Your task to perform on an android device: Search for vegetarian restaurants on Maps Image 0: 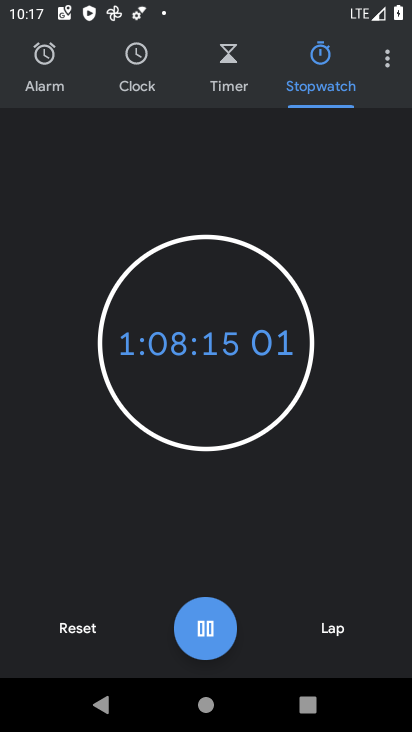
Step 0: press home button
Your task to perform on an android device: Search for vegetarian restaurants on Maps Image 1: 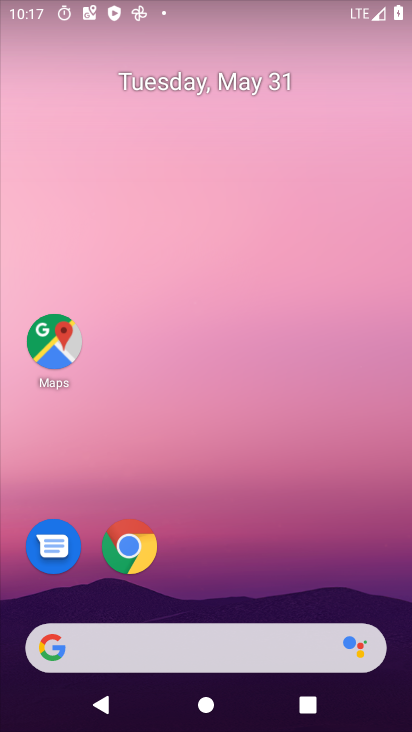
Step 1: click (43, 343)
Your task to perform on an android device: Search for vegetarian restaurants on Maps Image 2: 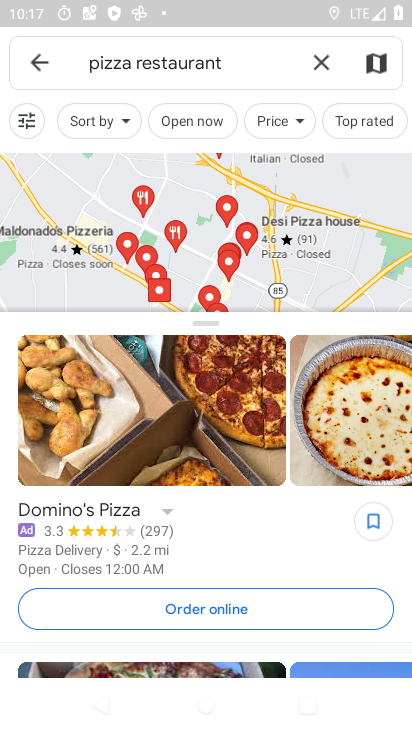
Step 2: click (330, 56)
Your task to perform on an android device: Search for vegetarian restaurants on Maps Image 3: 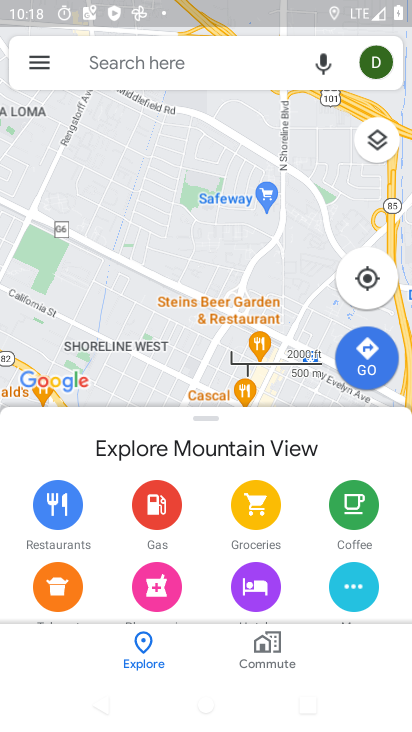
Step 3: click (204, 68)
Your task to perform on an android device: Search for vegetarian restaurants on Maps Image 4: 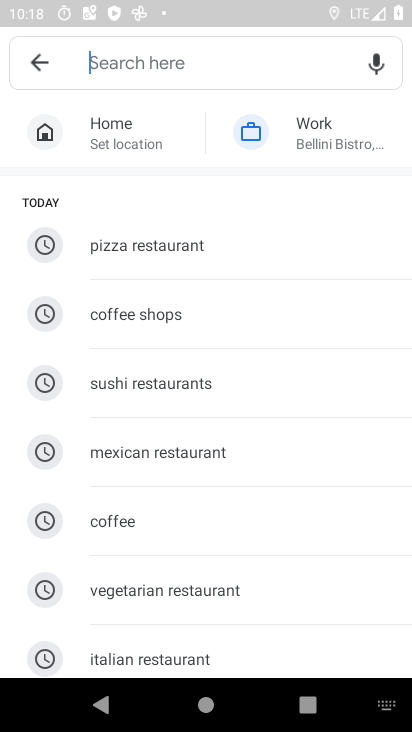
Step 4: click (169, 576)
Your task to perform on an android device: Search for vegetarian restaurants on Maps Image 5: 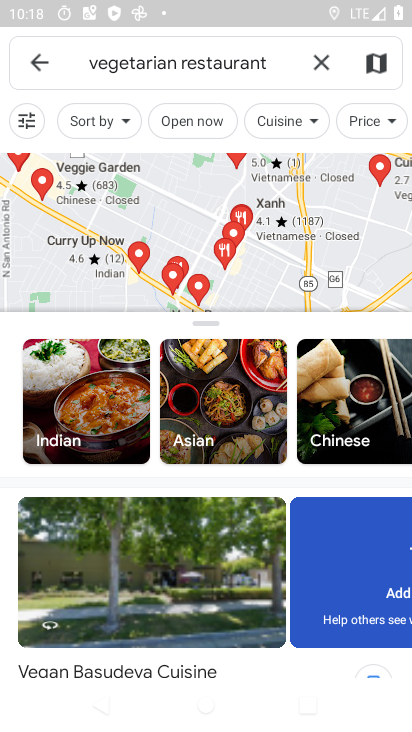
Step 5: task complete